Your task to perform on an android device: Open Chrome and go to settings Image 0: 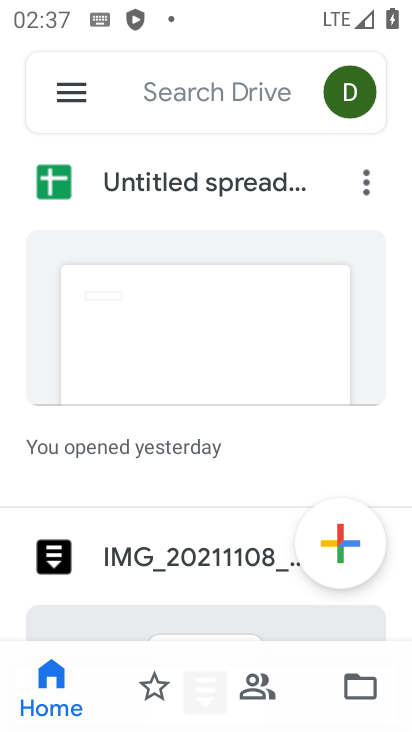
Step 0: press home button
Your task to perform on an android device: Open Chrome and go to settings Image 1: 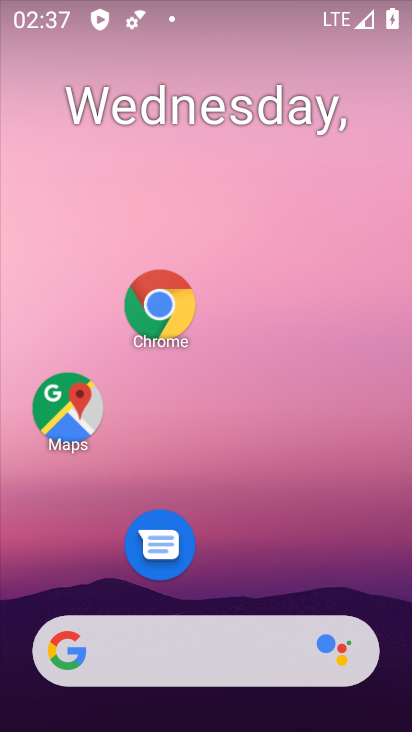
Step 1: drag from (223, 590) to (154, 267)
Your task to perform on an android device: Open Chrome and go to settings Image 2: 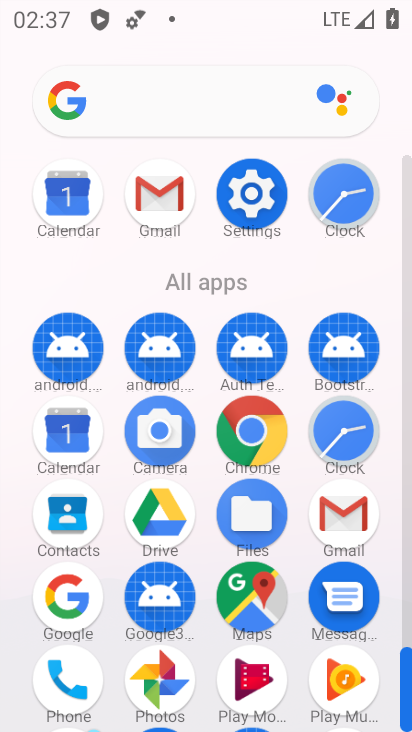
Step 2: press home button
Your task to perform on an android device: Open Chrome and go to settings Image 3: 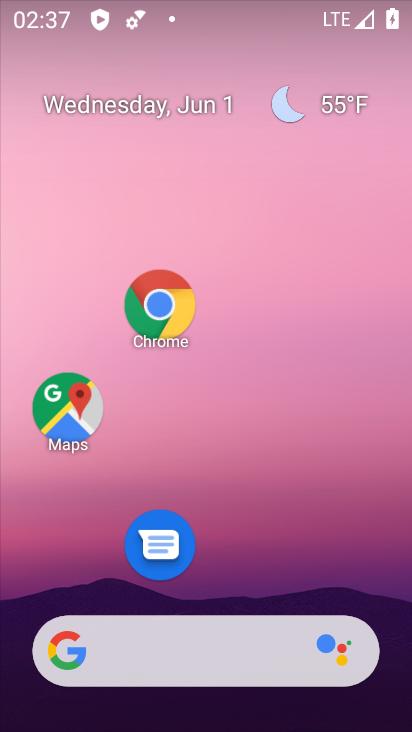
Step 3: drag from (238, 578) to (201, 228)
Your task to perform on an android device: Open Chrome and go to settings Image 4: 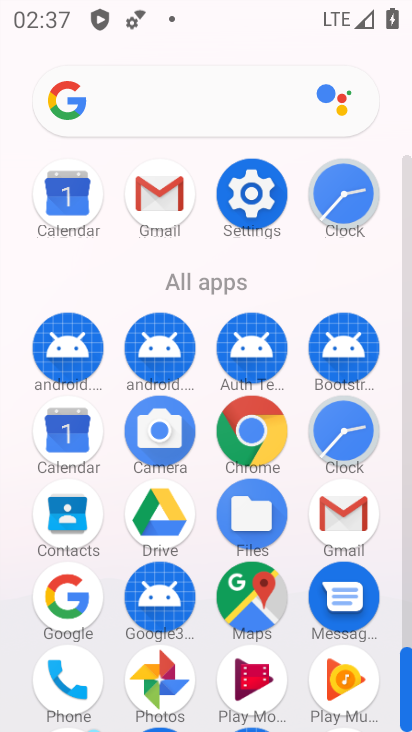
Step 4: click (263, 432)
Your task to perform on an android device: Open Chrome and go to settings Image 5: 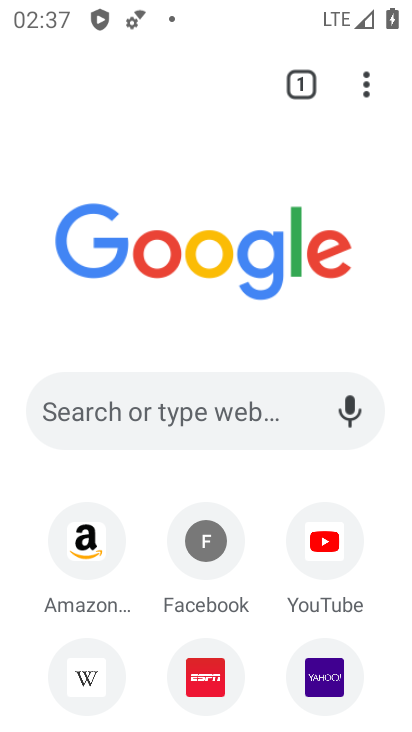
Step 5: click (359, 92)
Your task to perform on an android device: Open Chrome and go to settings Image 6: 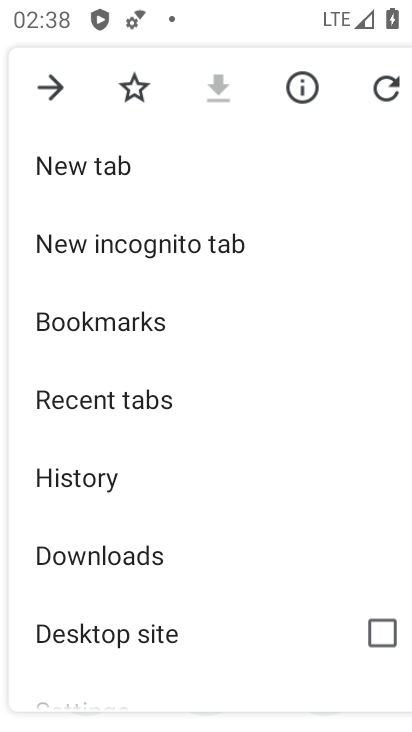
Step 6: drag from (173, 552) to (137, 248)
Your task to perform on an android device: Open Chrome and go to settings Image 7: 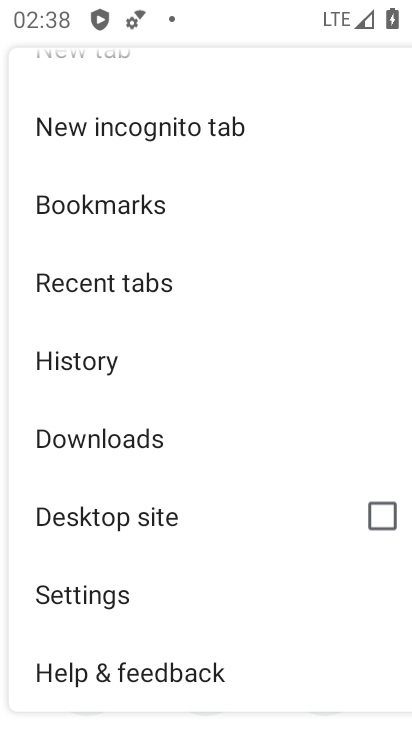
Step 7: click (116, 606)
Your task to perform on an android device: Open Chrome and go to settings Image 8: 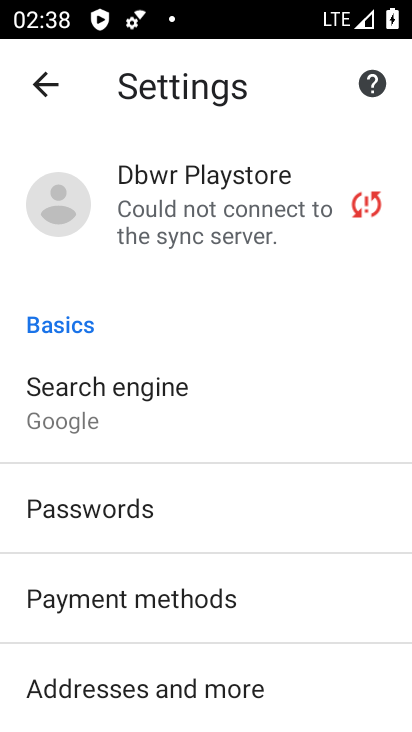
Step 8: task complete